Your task to perform on an android device: set the timer Image 0: 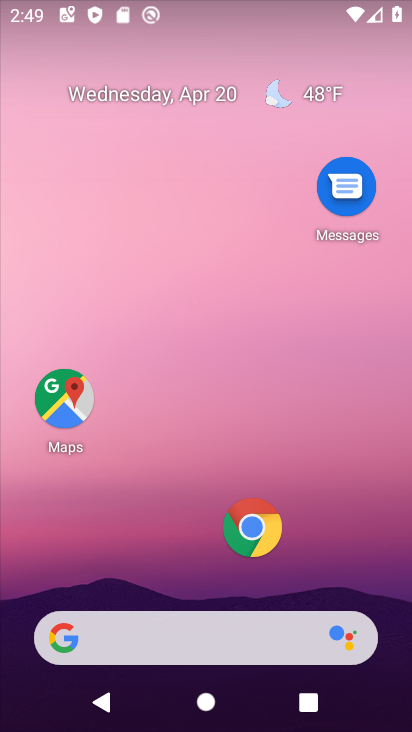
Step 0: press home button
Your task to perform on an android device: set the timer Image 1: 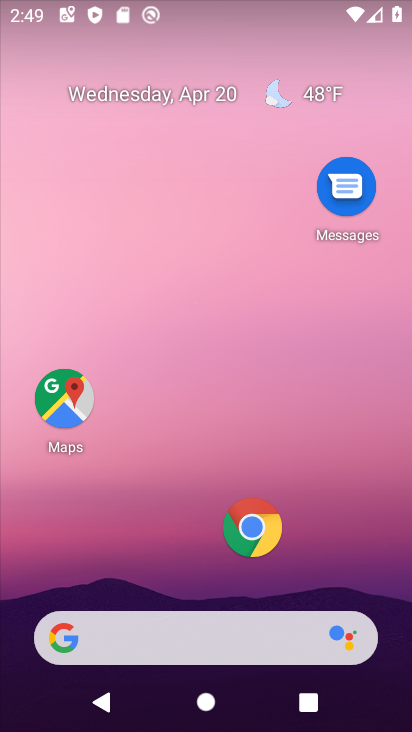
Step 1: drag from (164, 626) to (270, 71)
Your task to perform on an android device: set the timer Image 2: 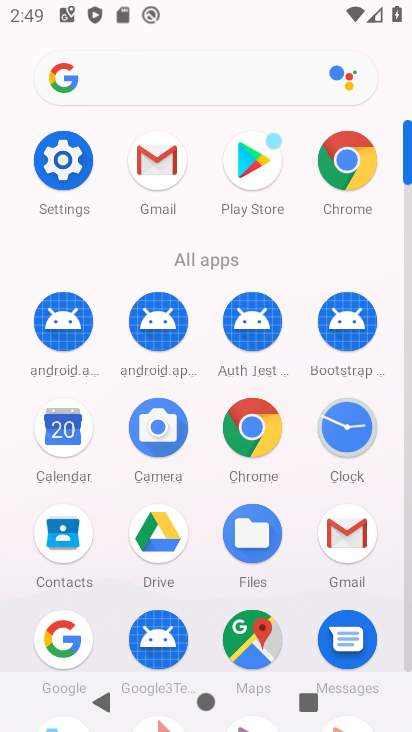
Step 2: click (338, 423)
Your task to perform on an android device: set the timer Image 3: 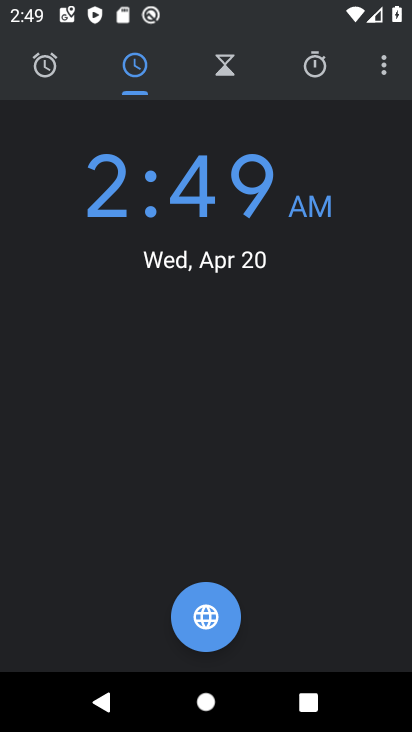
Step 3: click (218, 63)
Your task to perform on an android device: set the timer Image 4: 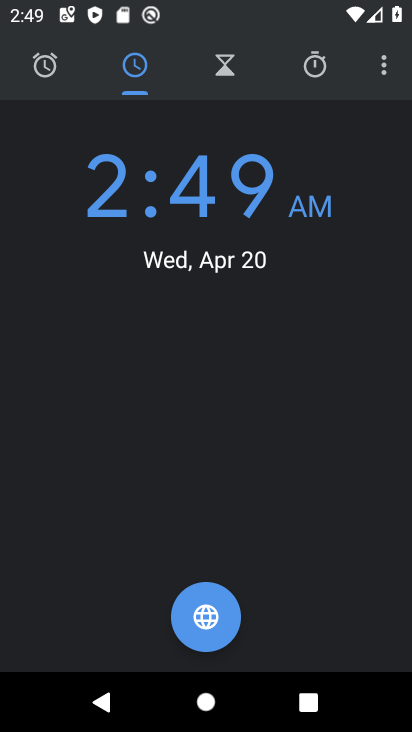
Step 4: click (230, 74)
Your task to perform on an android device: set the timer Image 5: 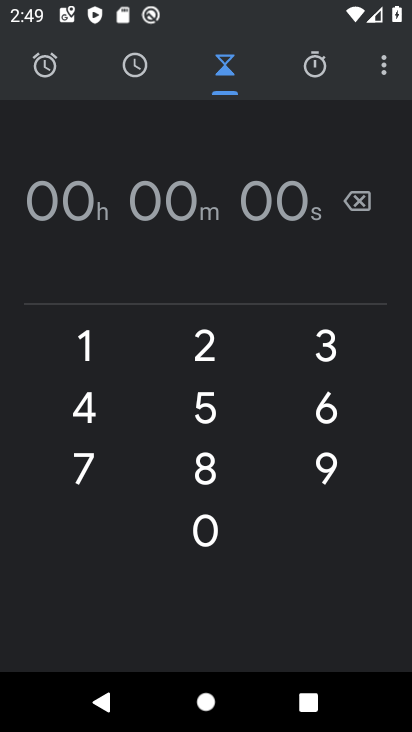
Step 5: click (207, 343)
Your task to perform on an android device: set the timer Image 6: 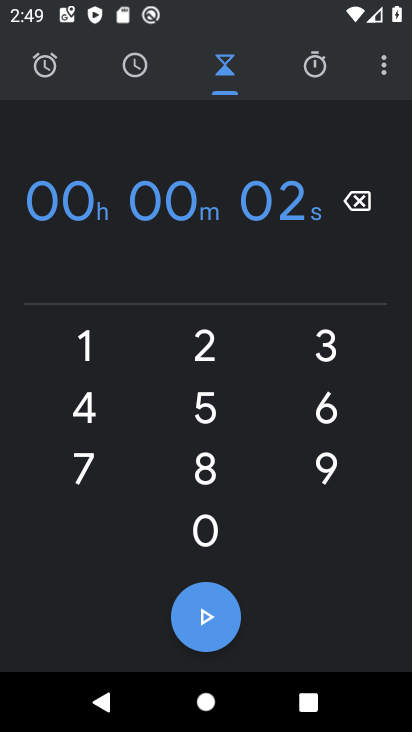
Step 6: click (204, 403)
Your task to perform on an android device: set the timer Image 7: 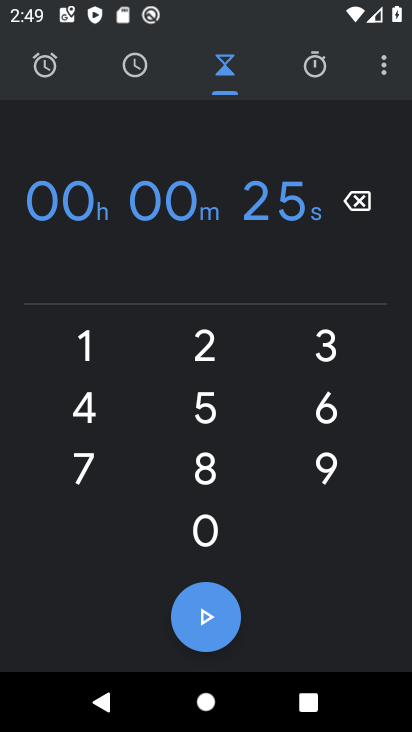
Step 7: click (204, 403)
Your task to perform on an android device: set the timer Image 8: 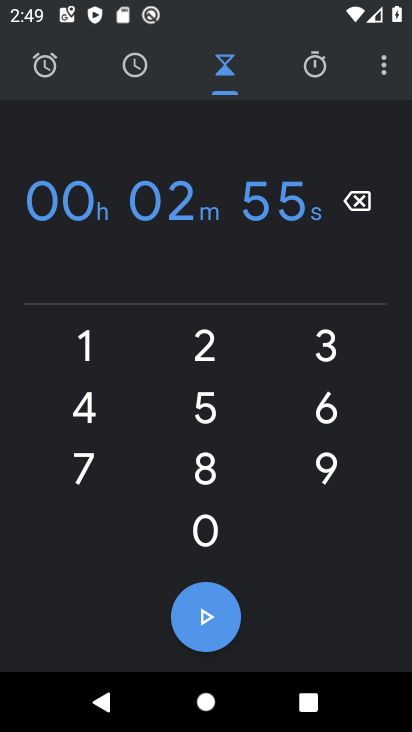
Step 8: click (204, 403)
Your task to perform on an android device: set the timer Image 9: 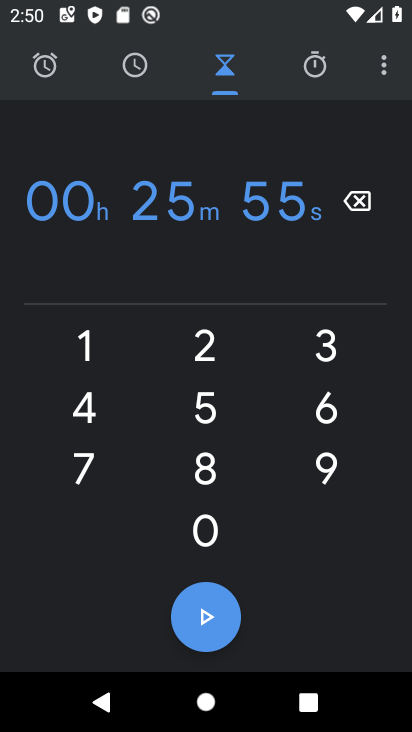
Step 9: click (204, 403)
Your task to perform on an android device: set the timer Image 10: 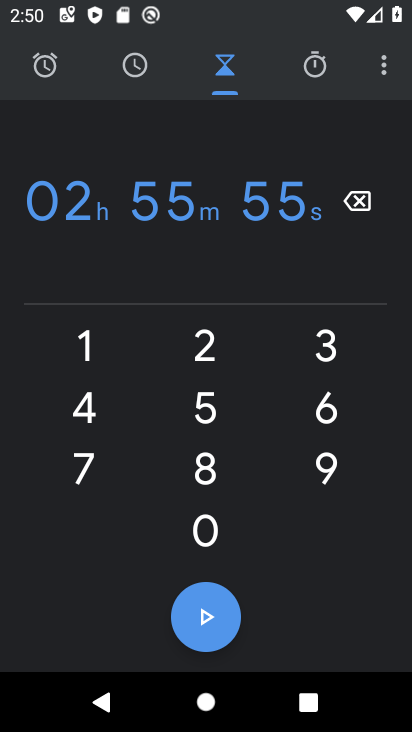
Step 10: click (210, 615)
Your task to perform on an android device: set the timer Image 11: 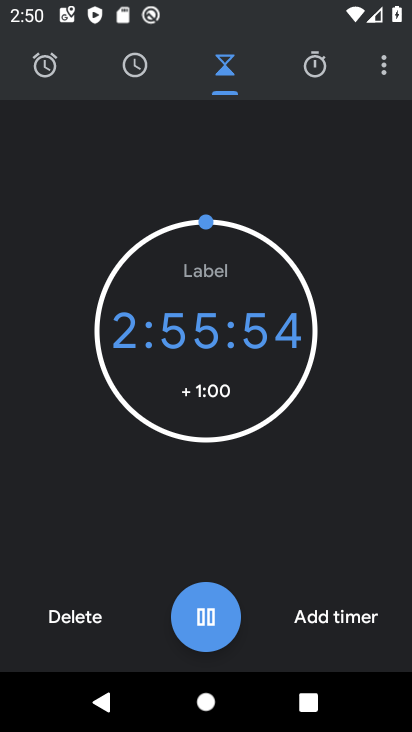
Step 11: click (209, 616)
Your task to perform on an android device: set the timer Image 12: 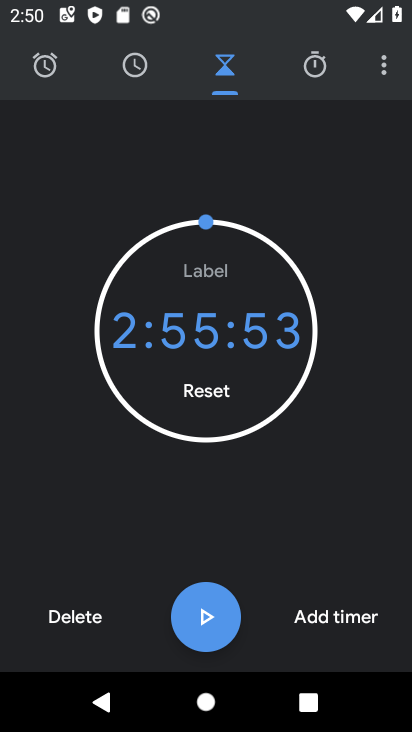
Step 12: task complete